Your task to perform on an android device: Search for seafood restaurants on Google Maps Image 0: 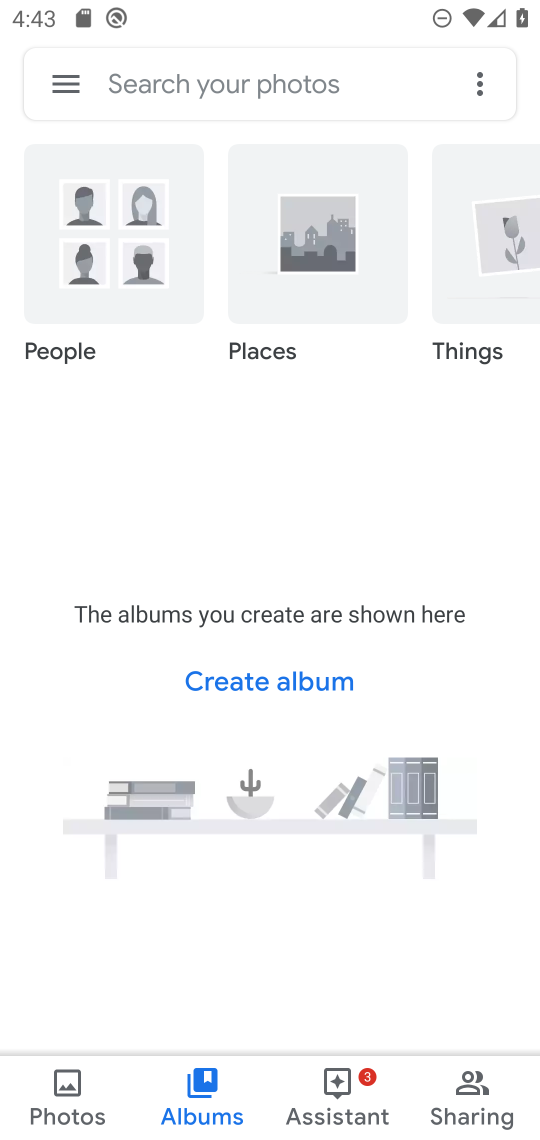
Step 0: press home button
Your task to perform on an android device: Search for seafood restaurants on Google Maps Image 1: 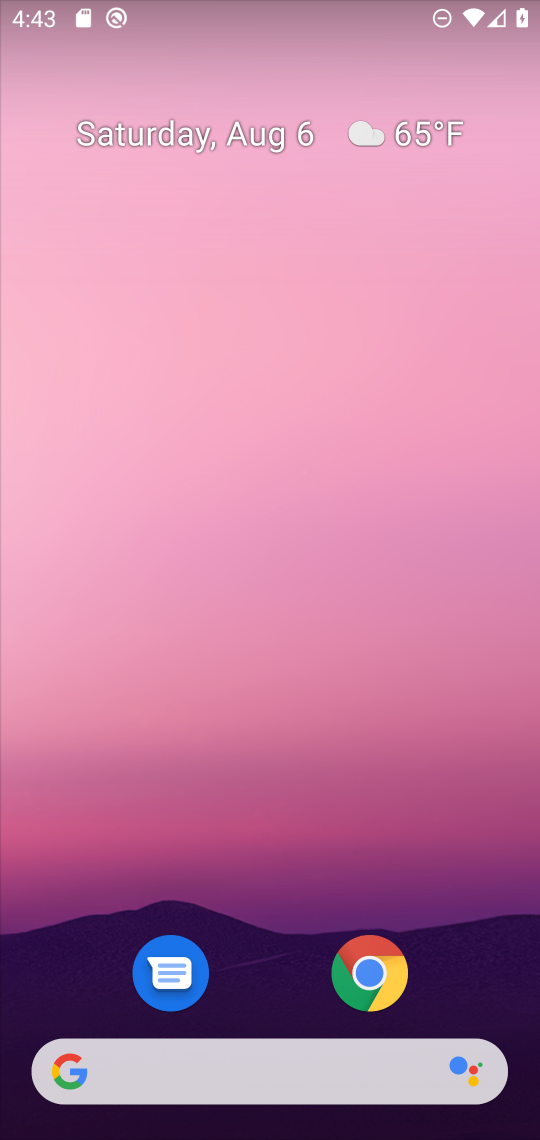
Step 1: drag from (289, 909) to (257, 201)
Your task to perform on an android device: Search for seafood restaurants on Google Maps Image 2: 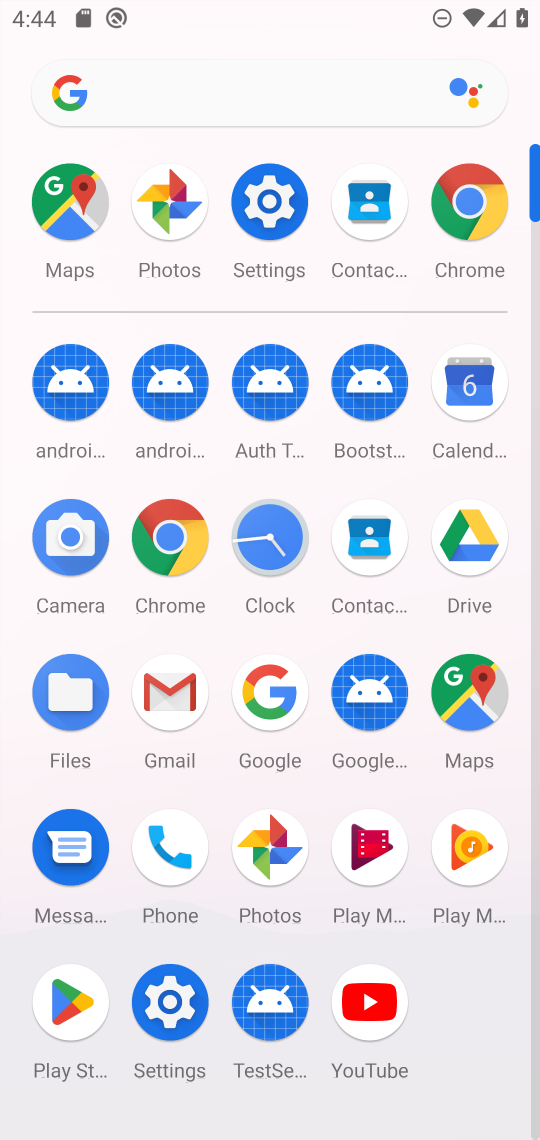
Step 2: click (473, 704)
Your task to perform on an android device: Search for seafood restaurants on Google Maps Image 3: 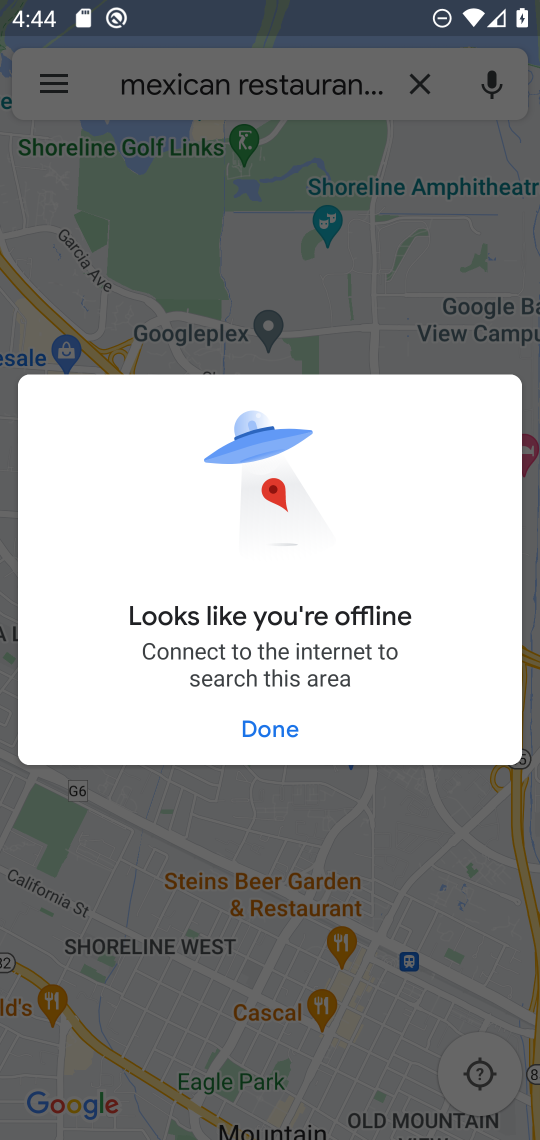
Step 3: click (272, 720)
Your task to perform on an android device: Search for seafood restaurants on Google Maps Image 4: 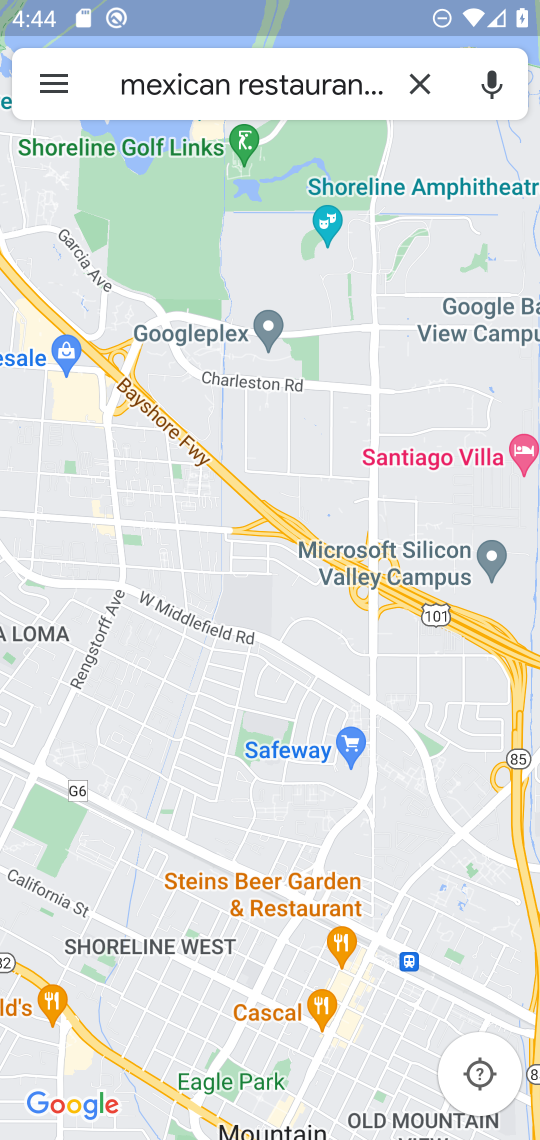
Step 4: click (364, 95)
Your task to perform on an android device: Search for seafood restaurants on Google Maps Image 5: 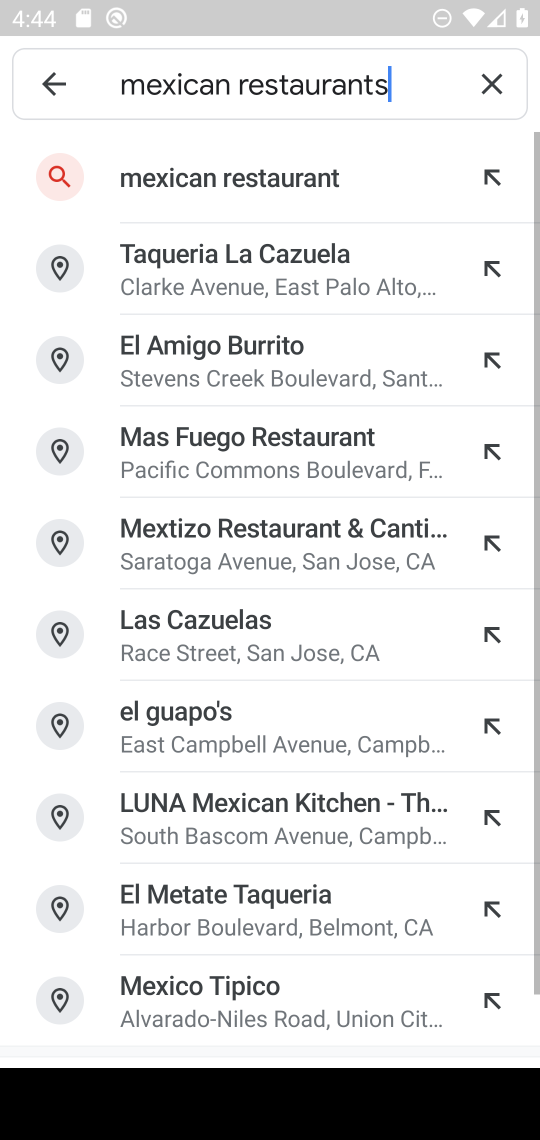
Step 5: click (484, 74)
Your task to perform on an android device: Search for seafood restaurants on Google Maps Image 6: 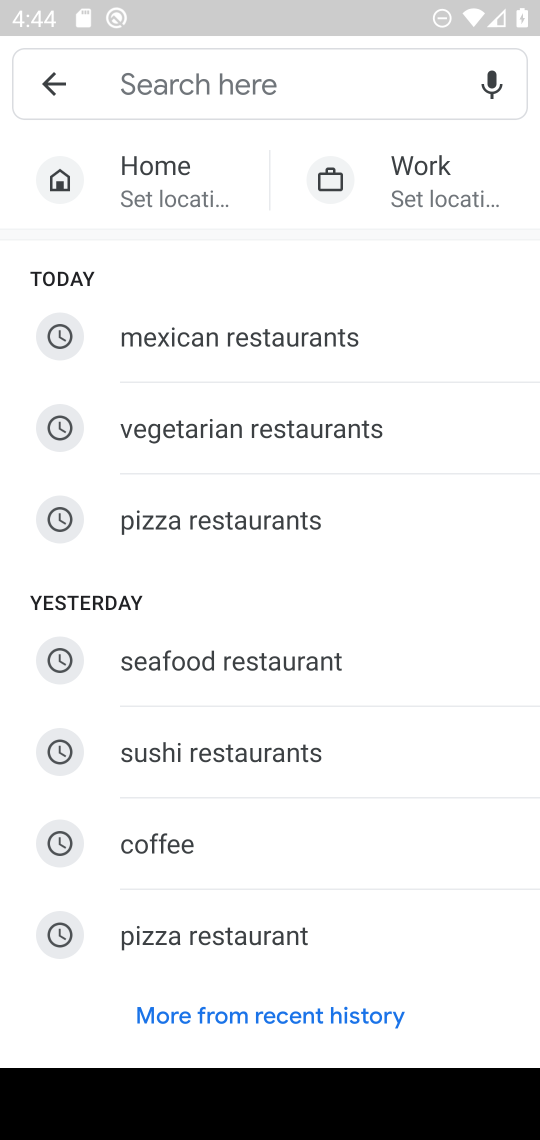
Step 6: type "seafood restaurants"
Your task to perform on an android device: Search for seafood restaurants on Google Maps Image 7: 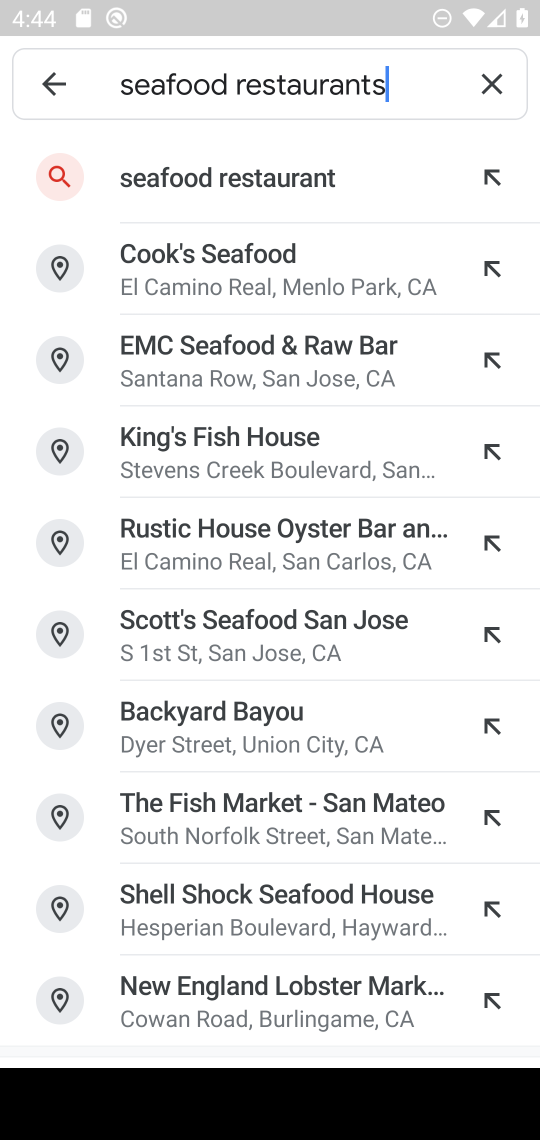
Step 7: press enter
Your task to perform on an android device: Search for seafood restaurants on Google Maps Image 8: 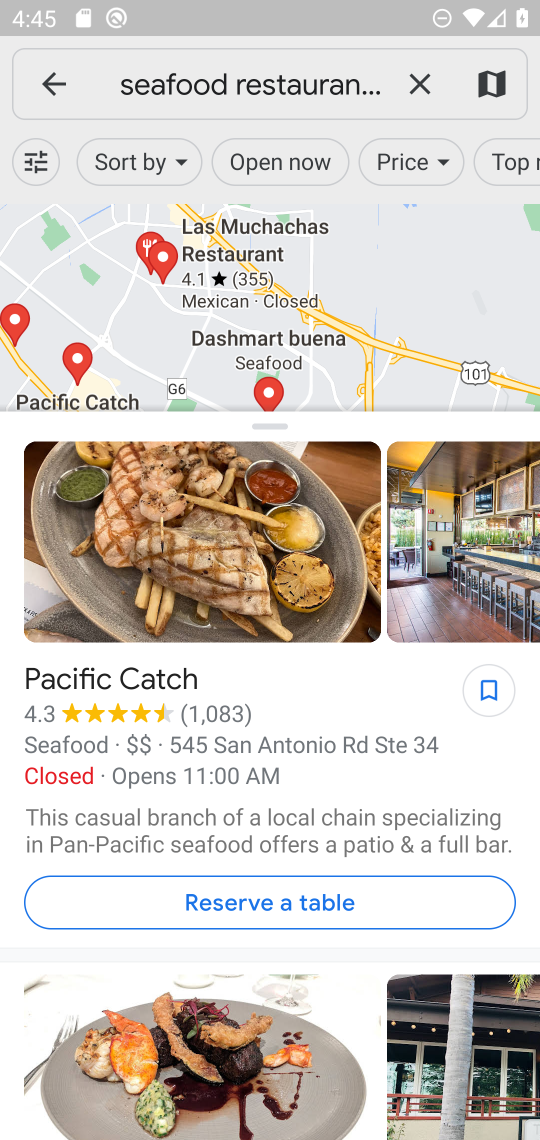
Step 8: task complete